Your task to perform on an android device: Set the phone to "Do not disturb". Image 0: 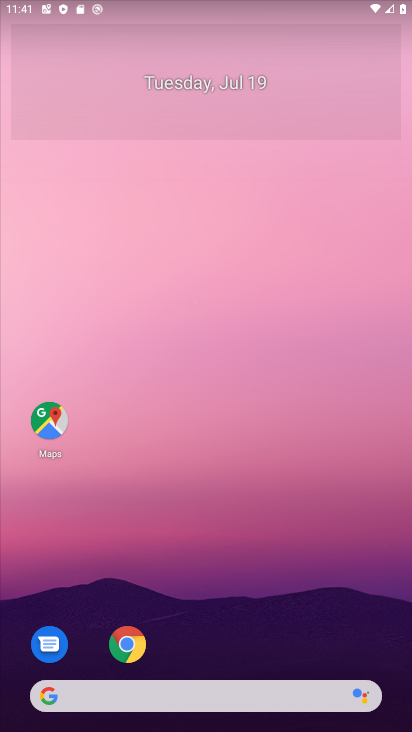
Step 0: drag from (110, 528) to (363, 84)
Your task to perform on an android device: Set the phone to "Do not disturb". Image 1: 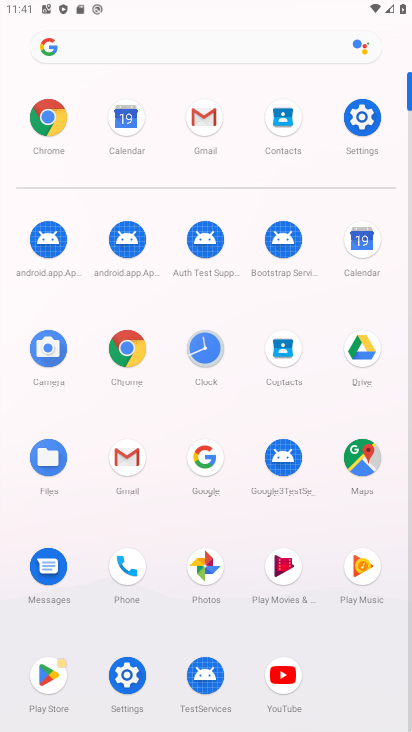
Step 1: click (121, 678)
Your task to perform on an android device: Set the phone to "Do not disturb". Image 2: 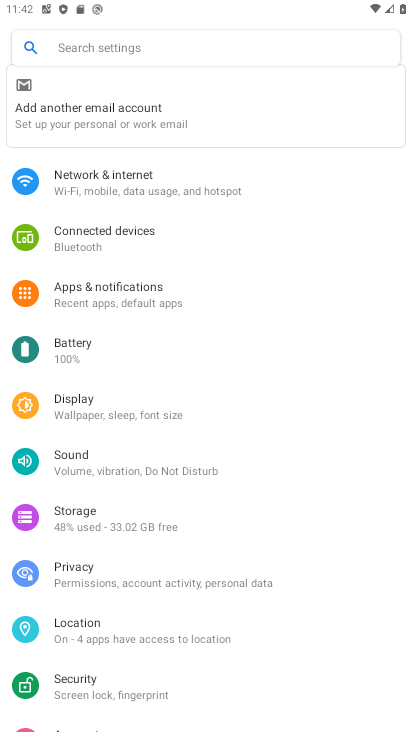
Step 2: click (111, 472)
Your task to perform on an android device: Set the phone to "Do not disturb". Image 3: 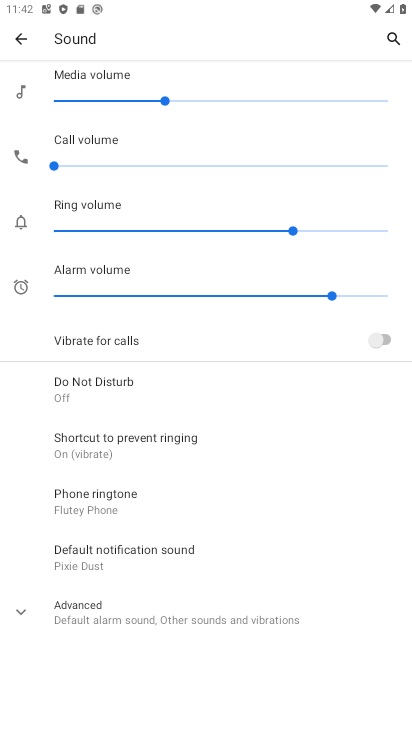
Step 3: click (102, 385)
Your task to perform on an android device: Set the phone to "Do not disturb". Image 4: 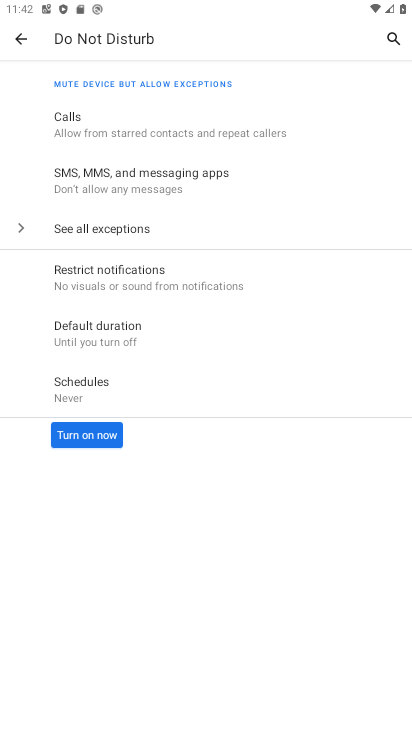
Step 4: click (92, 432)
Your task to perform on an android device: Set the phone to "Do not disturb". Image 5: 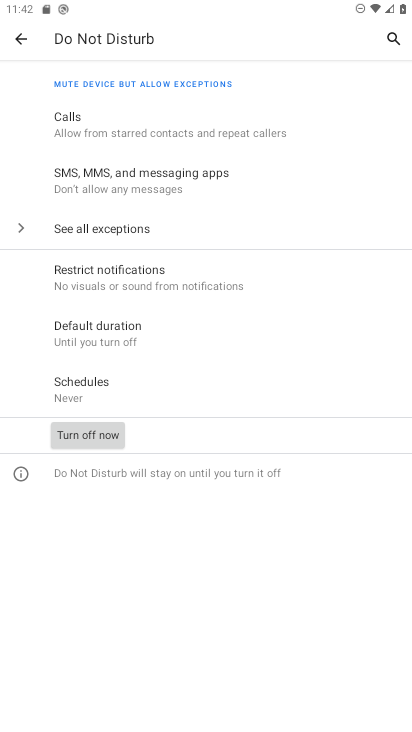
Step 5: task complete